Your task to perform on an android device: turn off data saver in the chrome app Image 0: 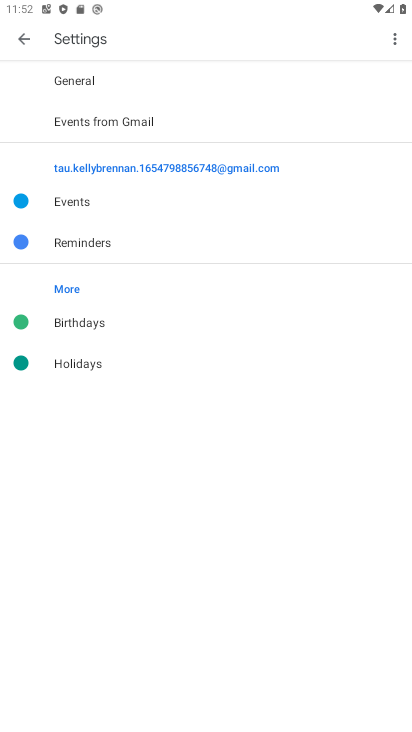
Step 0: press home button
Your task to perform on an android device: turn off data saver in the chrome app Image 1: 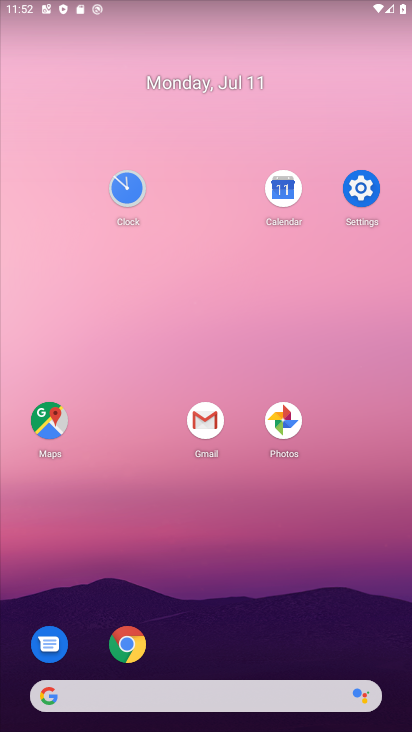
Step 1: click (131, 648)
Your task to perform on an android device: turn off data saver in the chrome app Image 2: 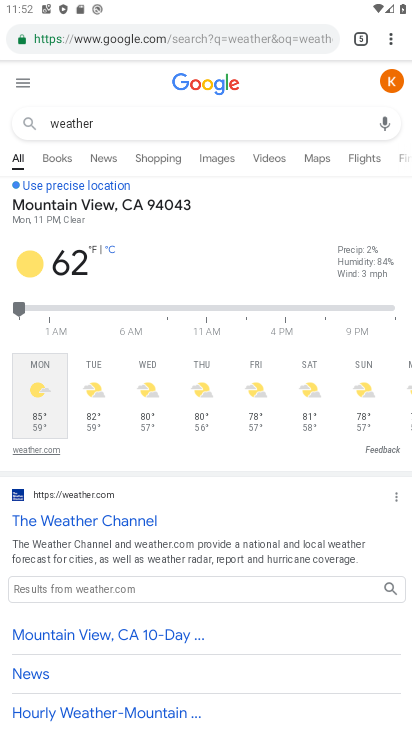
Step 2: click (395, 40)
Your task to perform on an android device: turn off data saver in the chrome app Image 3: 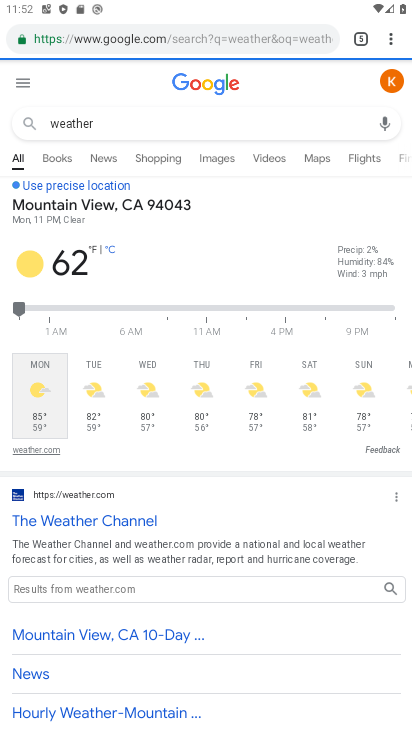
Step 3: click (391, 33)
Your task to perform on an android device: turn off data saver in the chrome app Image 4: 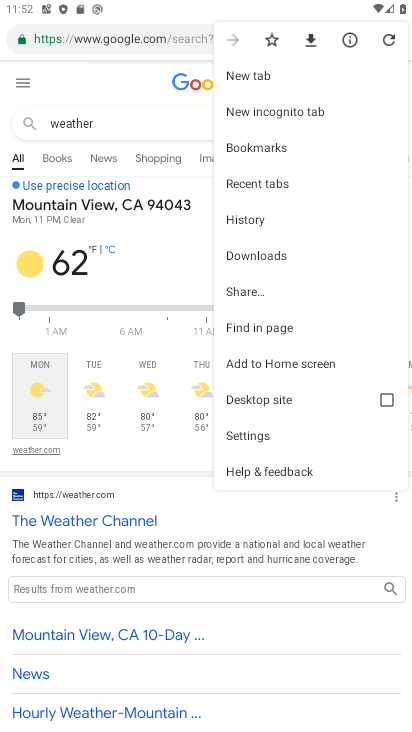
Step 4: click (277, 437)
Your task to perform on an android device: turn off data saver in the chrome app Image 5: 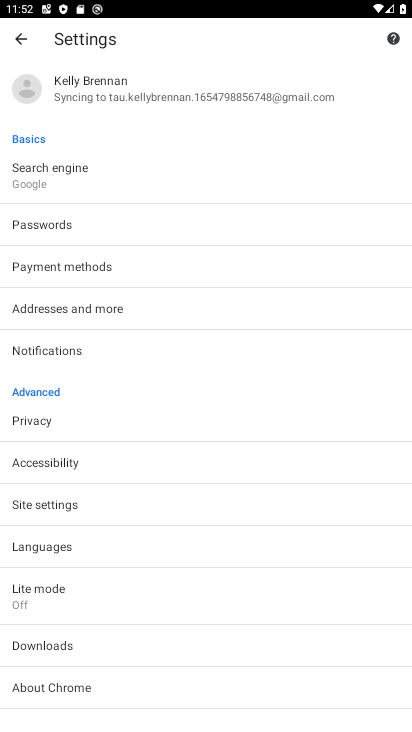
Step 5: drag from (74, 553) to (109, 266)
Your task to perform on an android device: turn off data saver in the chrome app Image 6: 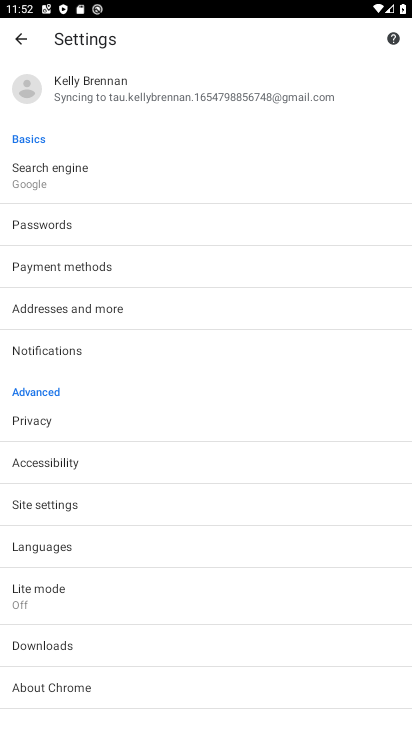
Step 6: click (123, 590)
Your task to perform on an android device: turn off data saver in the chrome app Image 7: 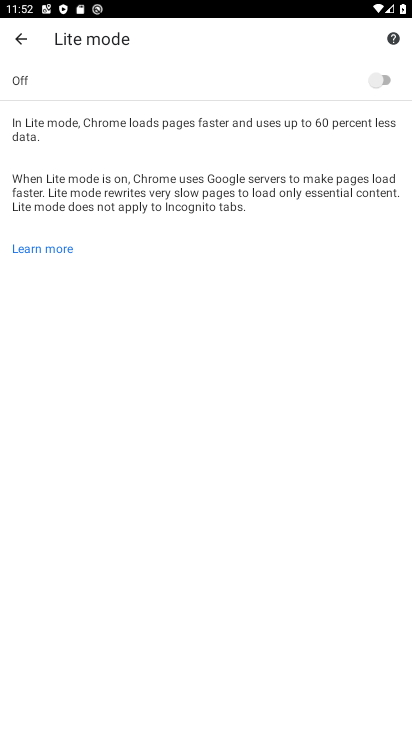
Step 7: task complete